Your task to perform on an android device: Search for seafood restaurants on Google Maps Image 0: 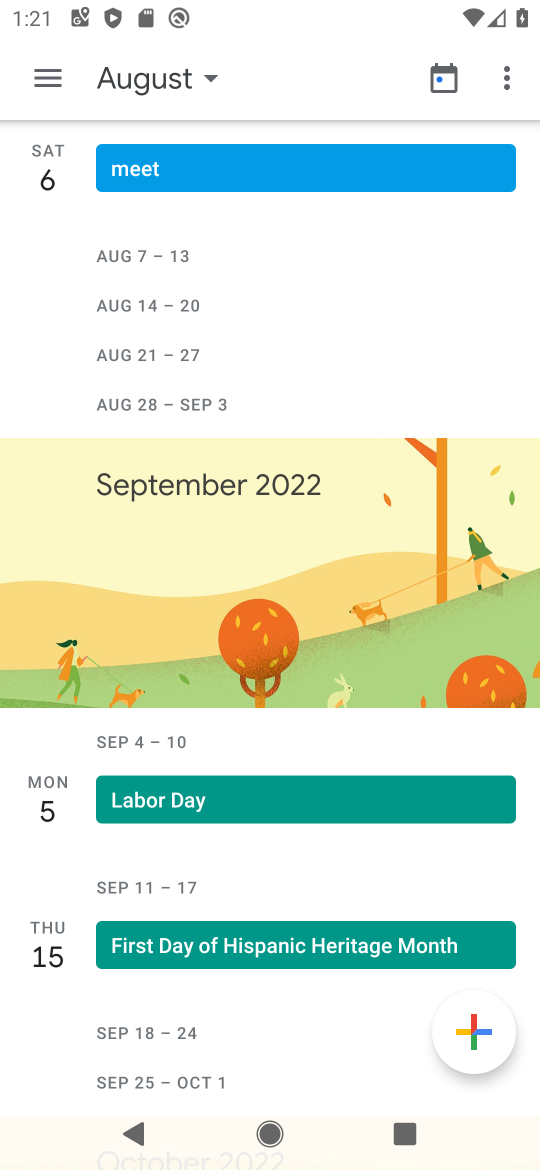
Step 0: press home button
Your task to perform on an android device: Search for seafood restaurants on Google Maps Image 1: 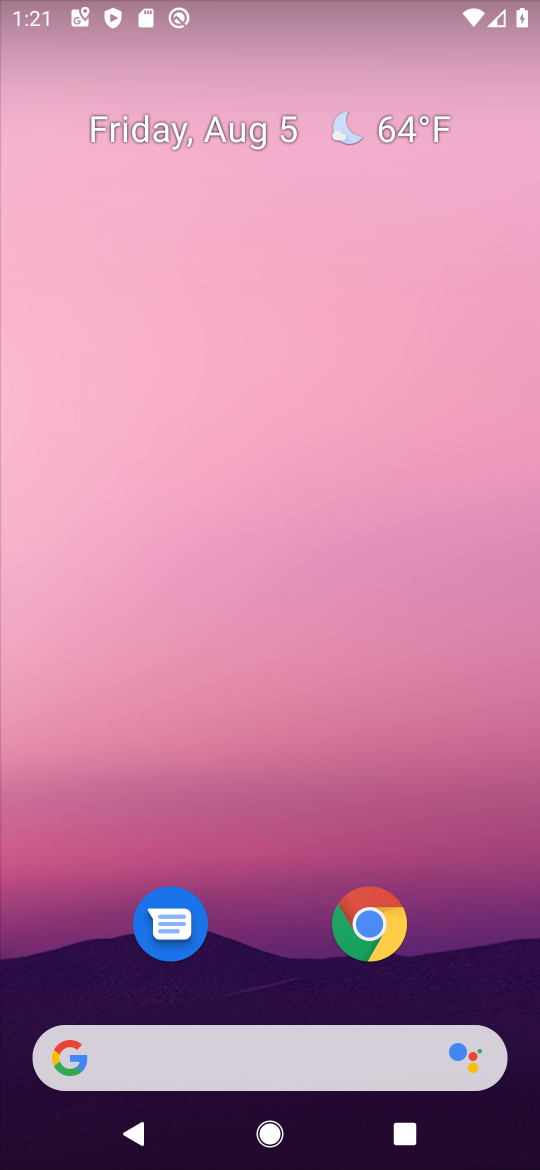
Step 1: drag from (230, 1067) to (208, 236)
Your task to perform on an android device: Search for seafood restaurants on Google Maps Image 2: 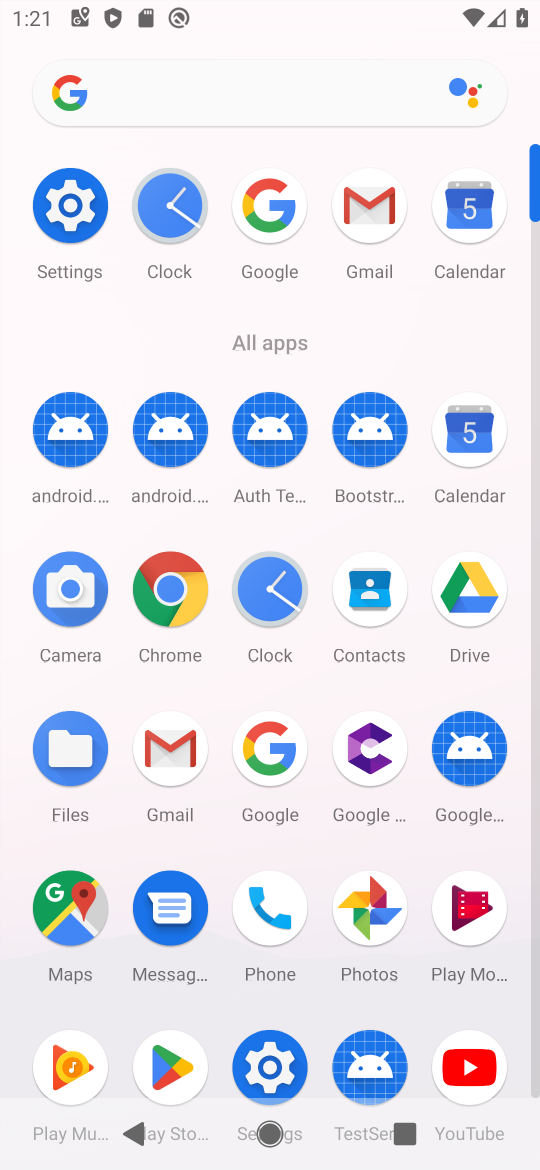
Step 2: click (70, 911)
Your task to perform on an android device: Search for seafood restaurants on Google Maps Image 3: 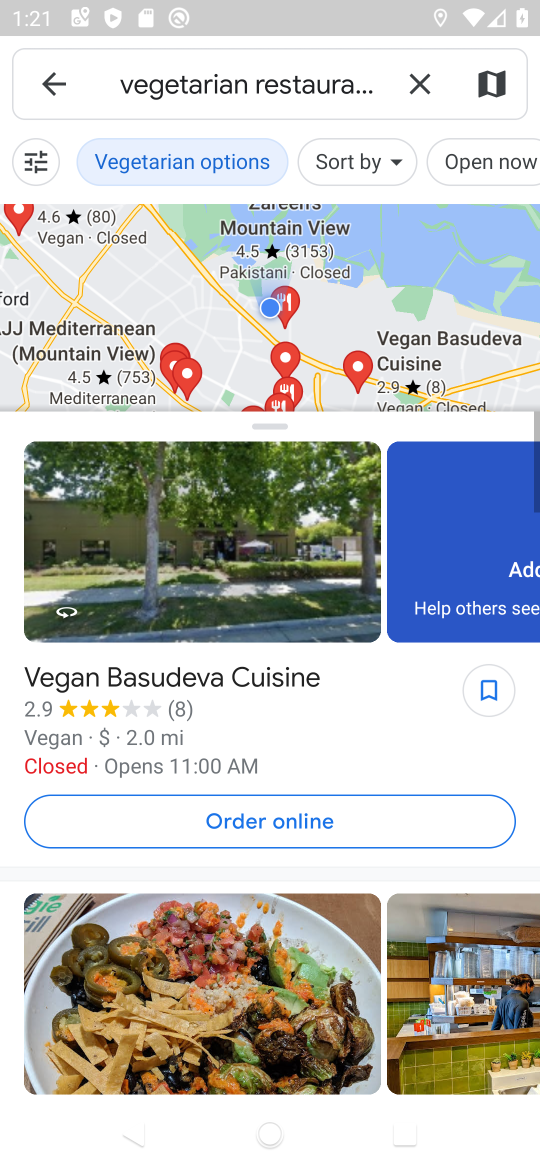
Step 3: click (416, 84)
Your task to perform on an android device: Search for seafood restaurants on Google Maps Image 4: 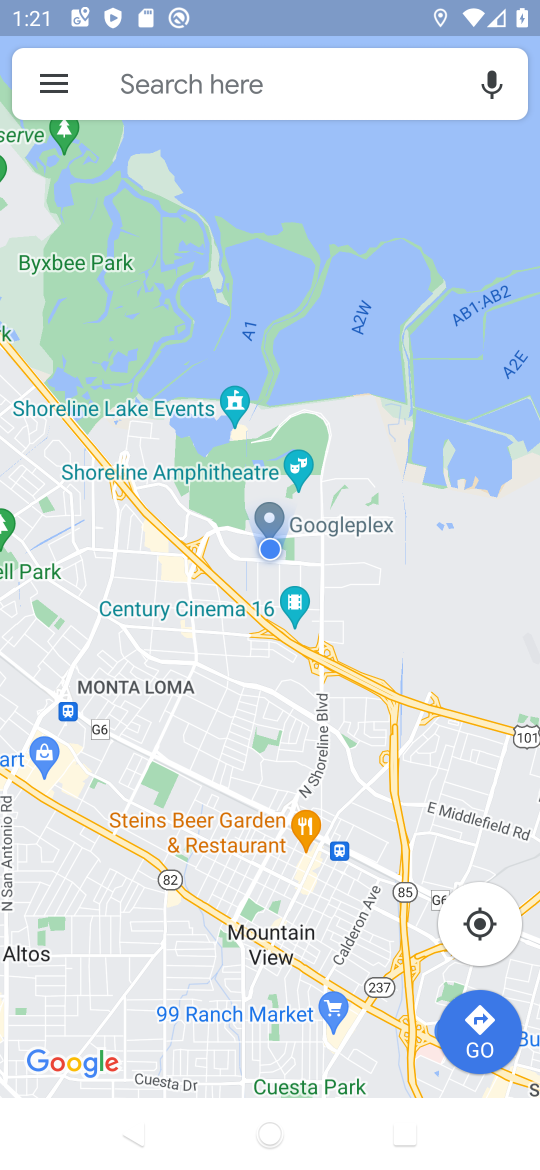
Step 4: click (292, 82)
Your task to perform on an android device: Search for seafood restaurants on Google Maps Image 5: 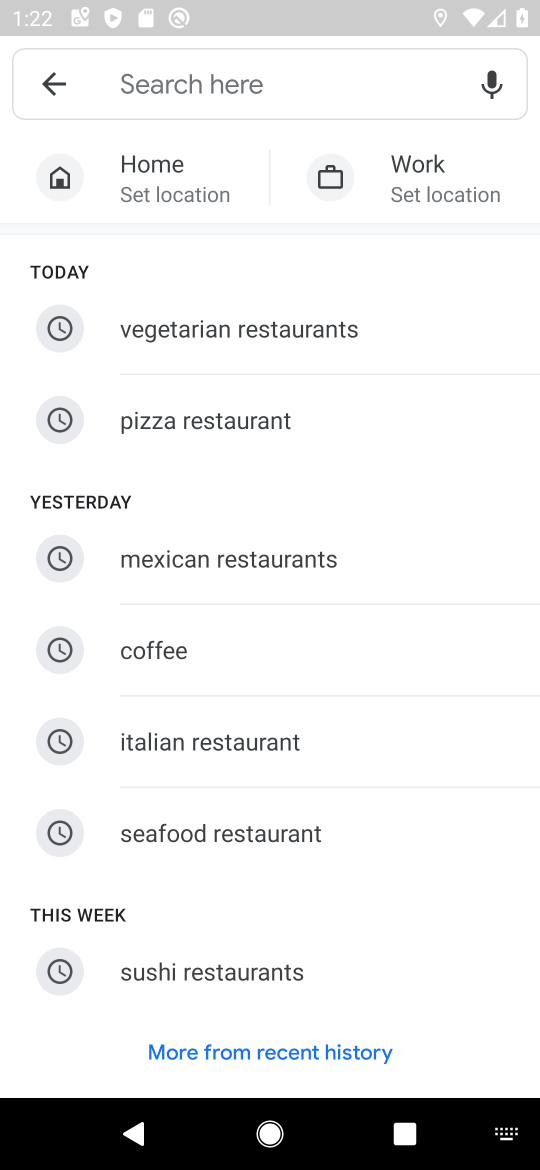
Step 5: type "seafood restaurants"
Your task to perform on an android device: Search for seafood restaurants on Google Maps Image 6: 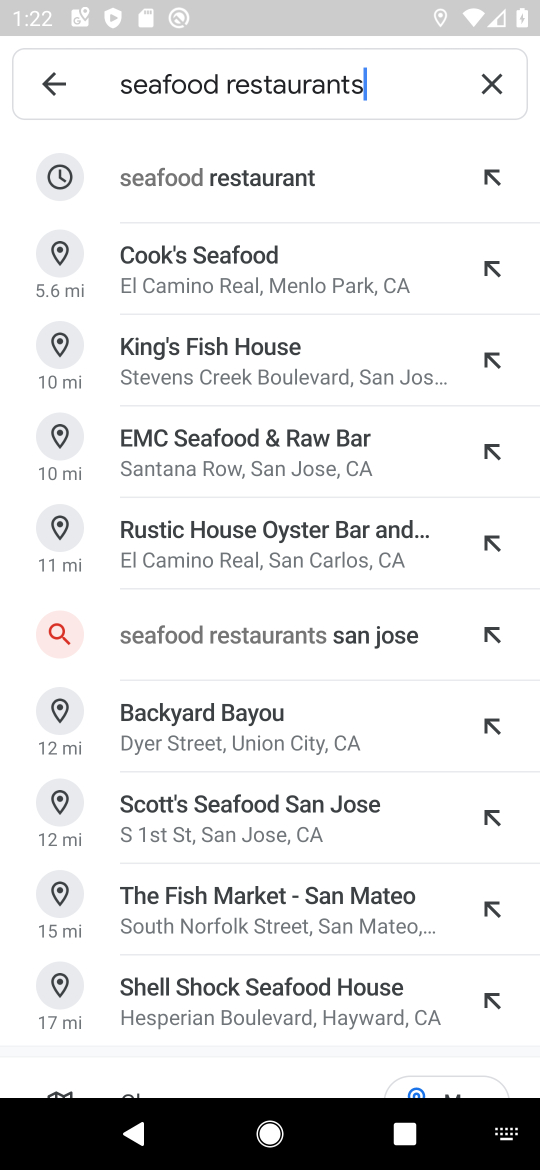
Step 6: click (223, 177)
Your task to perform on an android device: Search for seafood restaurants on Google Maps Image 7: 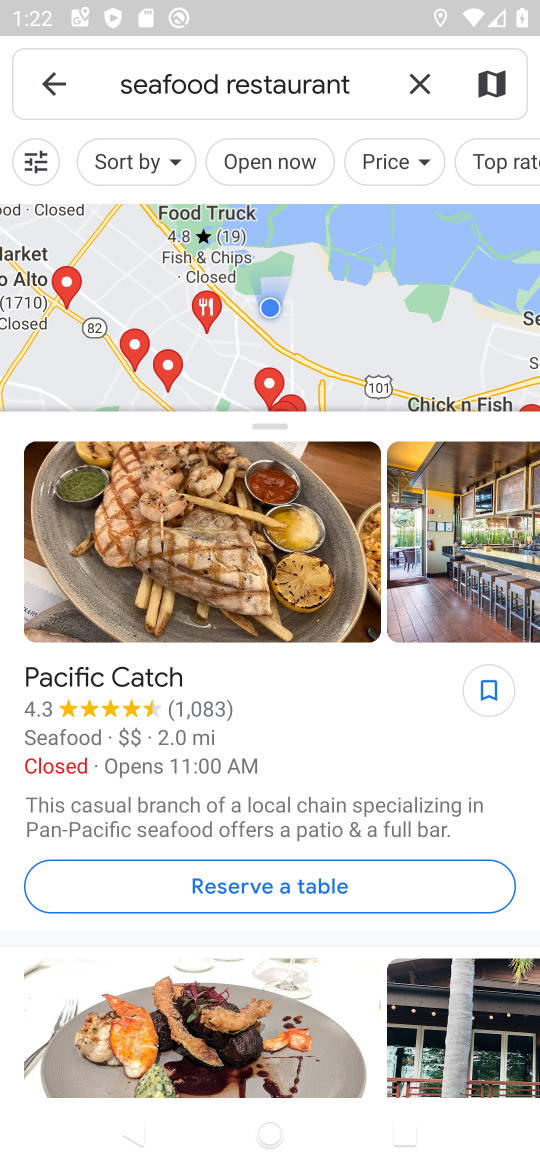
Step 7: task complete